Your task to perform on an android device: Toggle the flashlight Image 0: 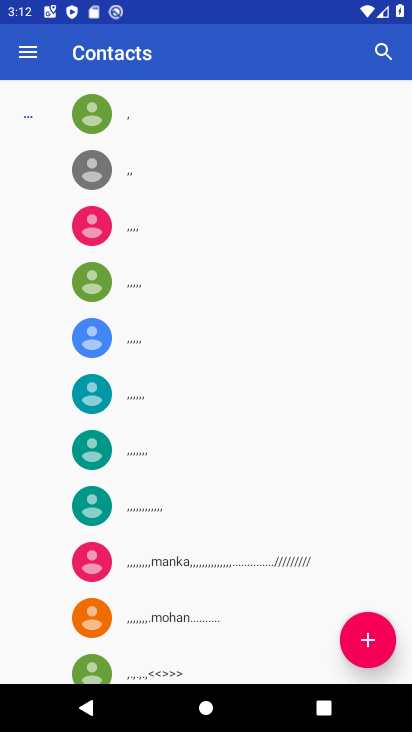
Step 0: press home button
Your task to perform on an android device: Toggle the flashlight Image 1: 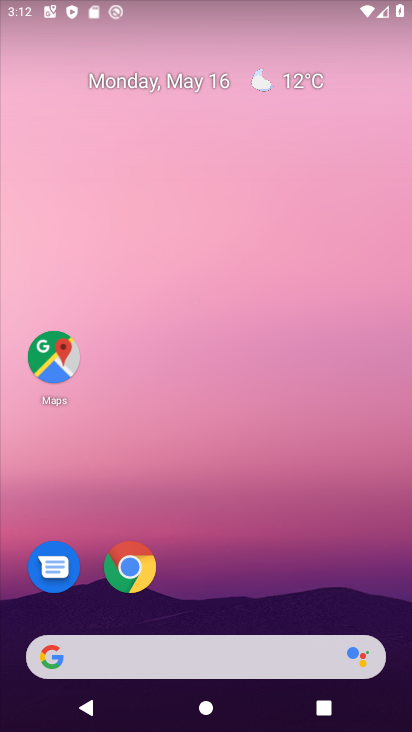
Step 1: task complete